Your task to perform on an android device: remove spam from my inbox in the gmail app Image 0: 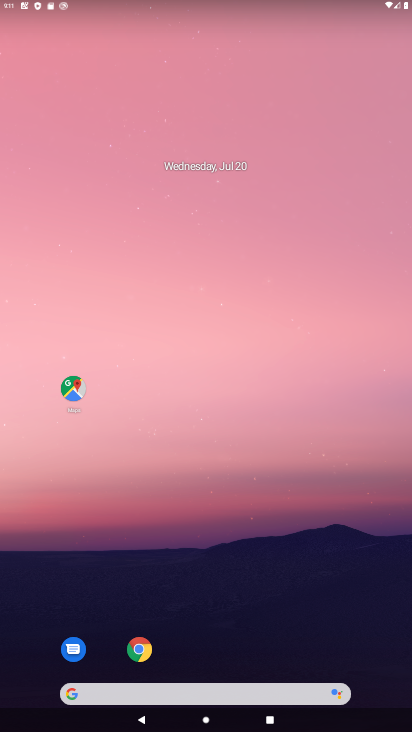
Step 0: click (146, 657)
Your task to perform on an android device: remove spam from my inbox in the gmail app Image 1: 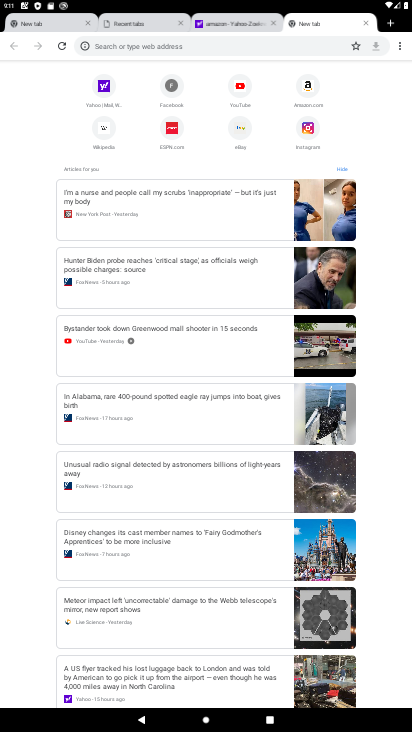
Step 1: click (395, 50)
Your task to perform on an android device: remove spam from my inbox in the gmail app Image 2: 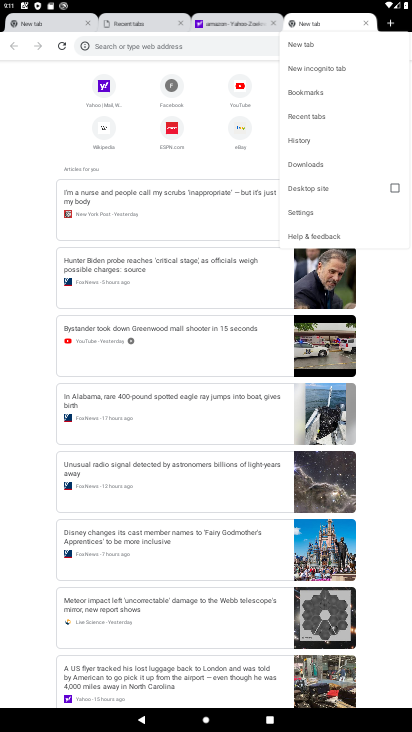
Step 2: click (318, 210)
Your task to perform on an android device: remove spam from my inbox in the gmail app Image 3: 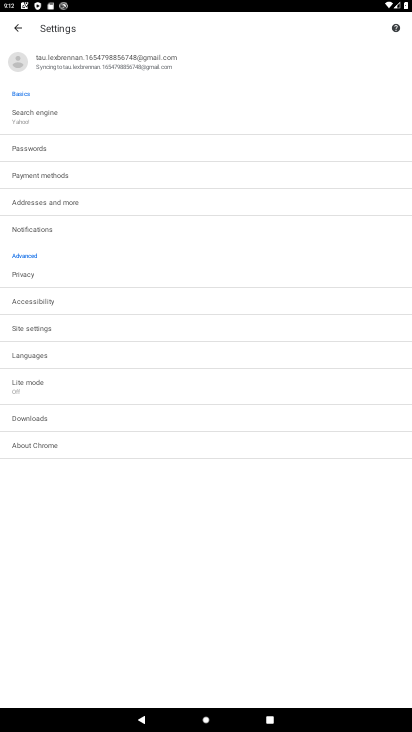
Step 3: task complete